Your task to perform on an android device: toggle wifi Image 0: 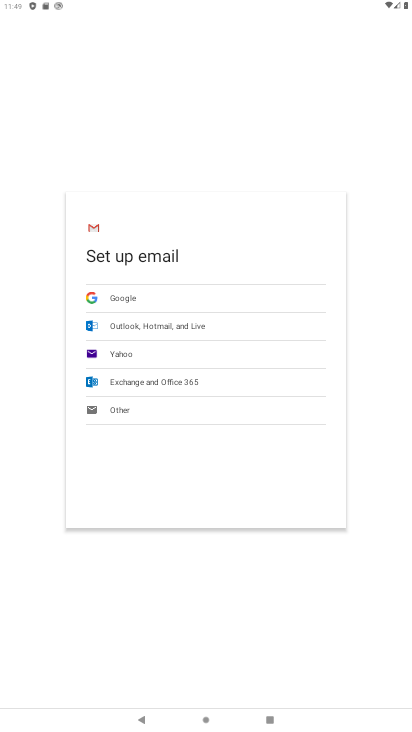
Step 0: press home button
Your task to perform on an android device: toggle wifi Image 1: 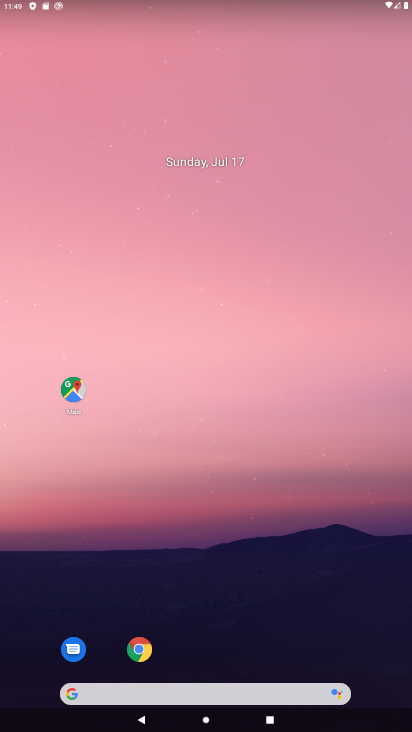
Step 1: drag from (66, 611) to (212, 35)
Your task to perform on an android device: toggle wifi Image 2: 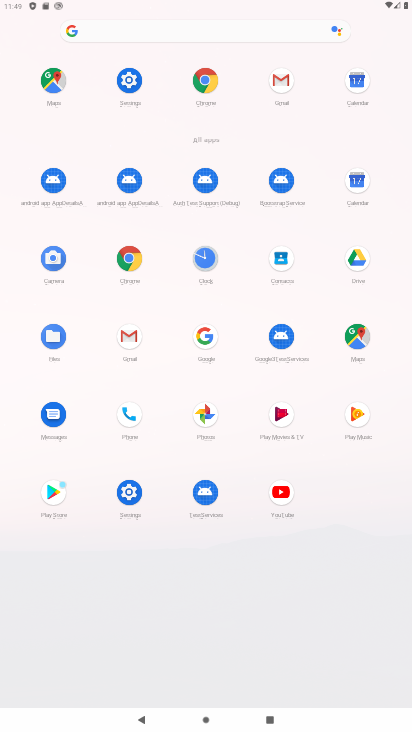
Step 2: click (129, 505)
Your task to perform on an android device: toggle wifi Image 3: 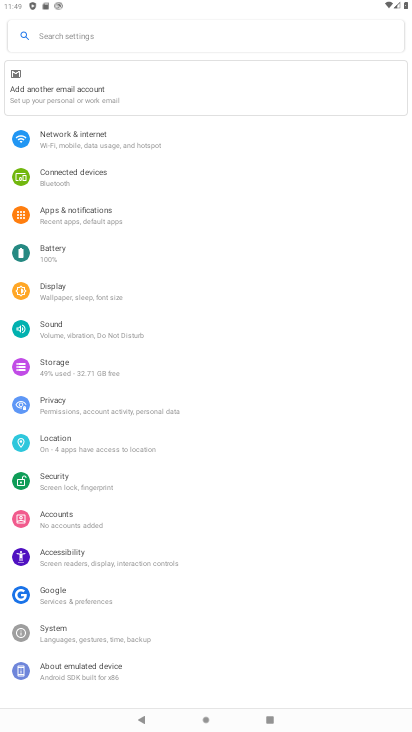
Step 3: click (109, 142)
Your task to perform on an android device: toggle wifi Image 4: 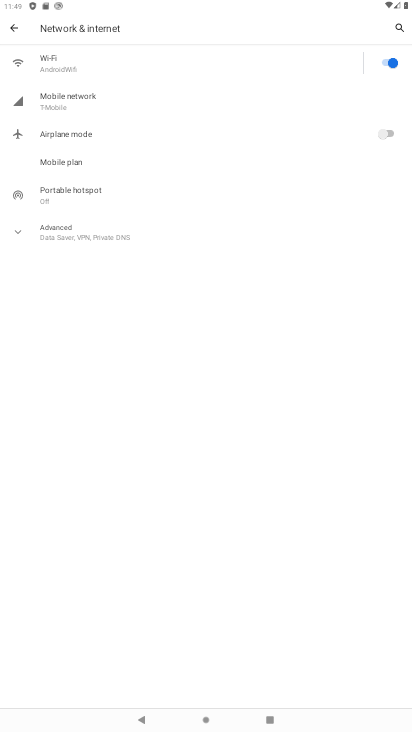
Step 4: task complete